Your task to perform on an android device: turn off translation in the chrome app Image 0: 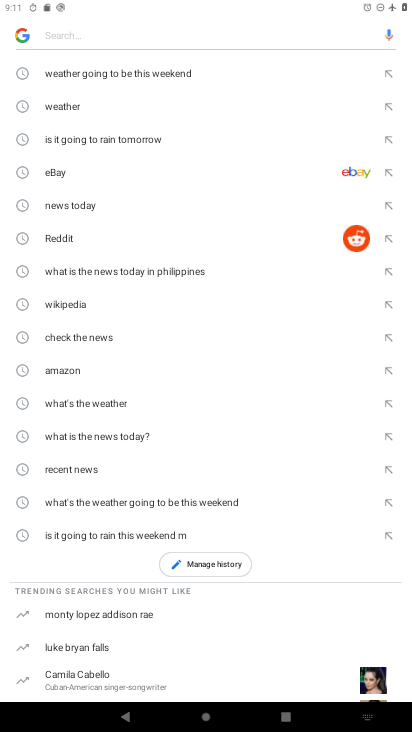
Step 0: press home button
Your task to perform on an android device: turn off translation in the chrome app Image 1: 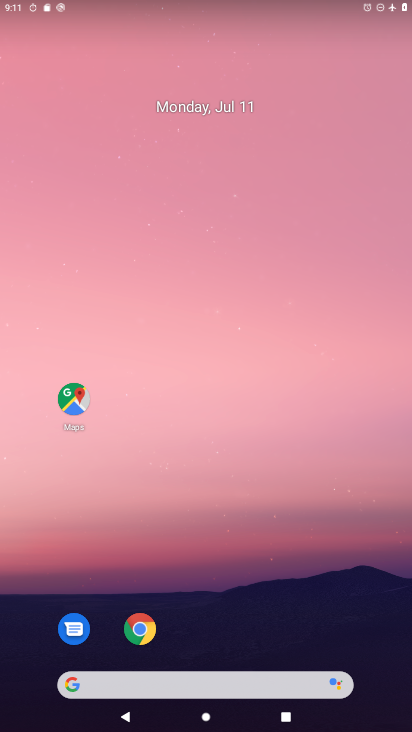
Step 1: click (145, 626)
Your task to perform on an android device: turn off translation in the chrome app Image 2: 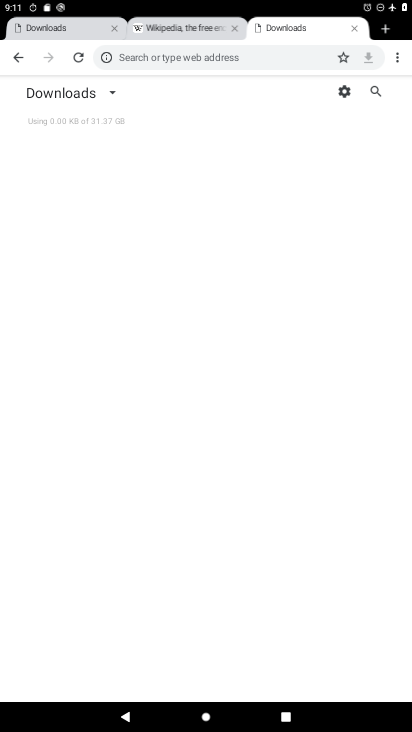
Step 2: click (394, 51)
Your task to perform on an android device: turn off translation in the chrome app Image 3: 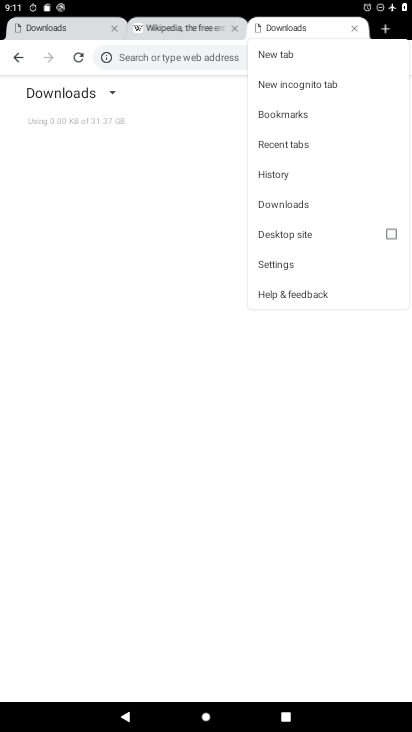
Step 3: click (311, 261)
Your task to perform on an android device: turn off translation in the chrome app Image 4: 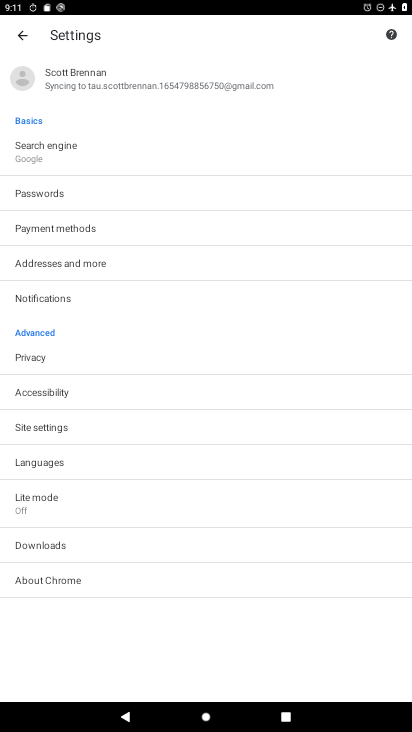
Step 4: click (70, 459)
Your task to perform on an android device: turn off translation in the chrome app Image 5: 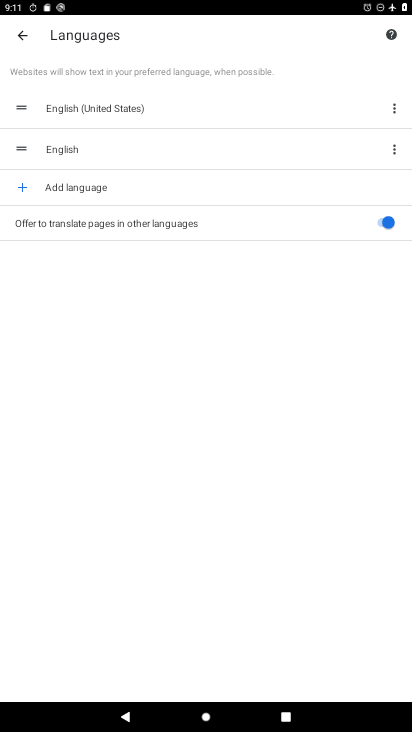
Step 5: click (392, 221)
Your task to perform on an android device: turn off translation in the chrome app Image 6: 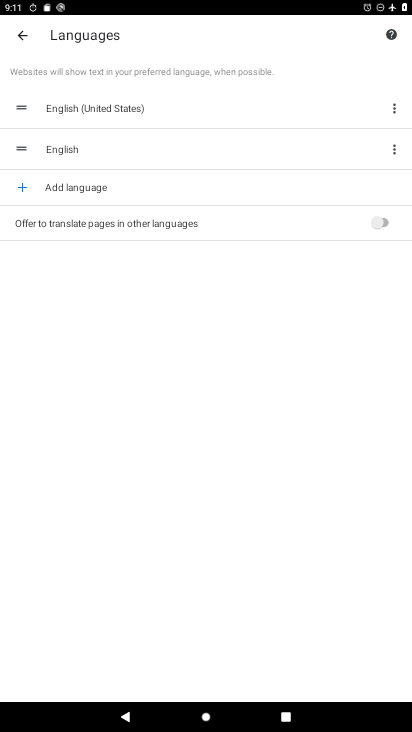
Step 6: task complete